Your task to perform on an android device: Do I have any events today? Image 0: 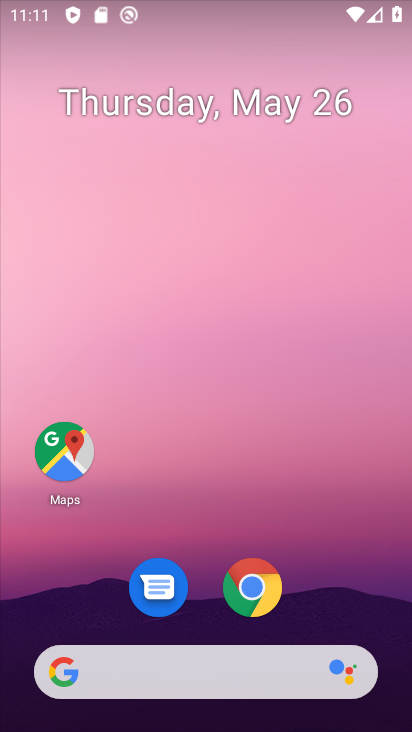
Step 0: drag from (239, 690) to (392, 42)
Your task to perform on an android device: Do I have any events today? Image 1: 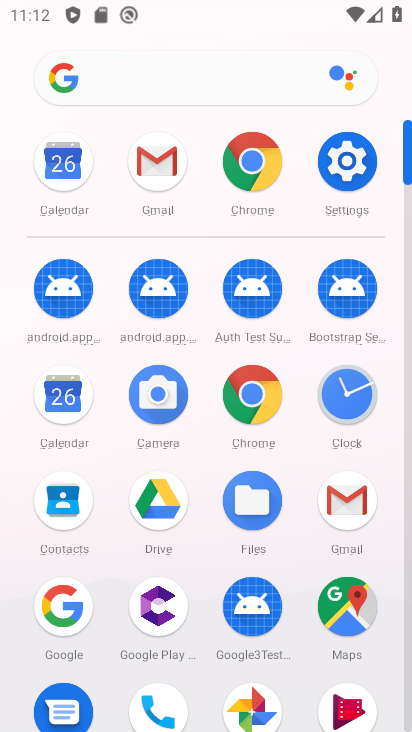
Step 1: click (59, 402)
Your task to perform on an android device: Do I have any events today? Image 2: 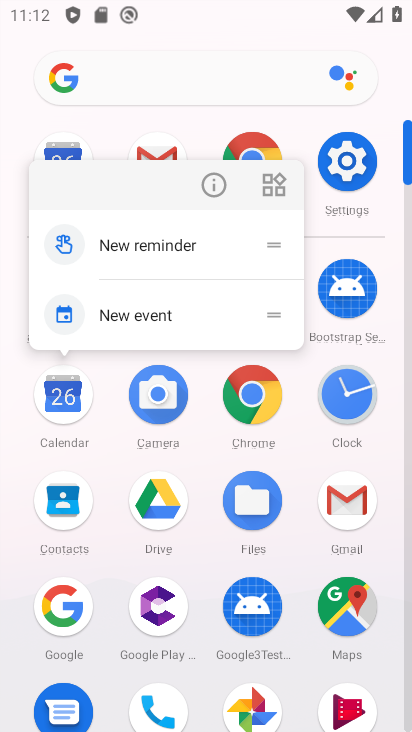
Step 2: click (67, 412)
Your task to perform on an android device: Do I have any events today? Image 3: 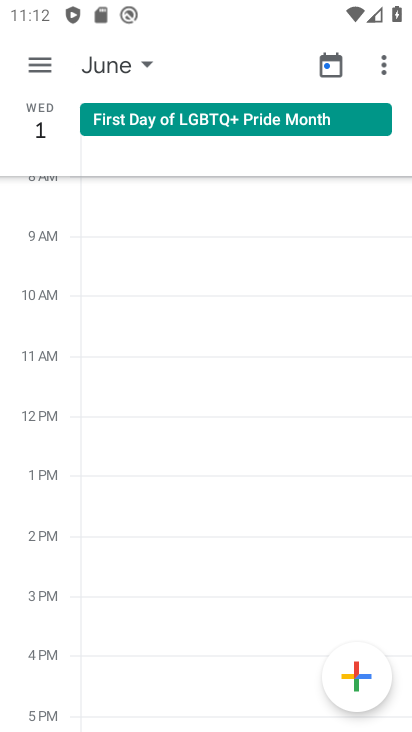
Step 3: click (40, 75)
Your task to perform on an android device: Do I have any events today? Image 4: 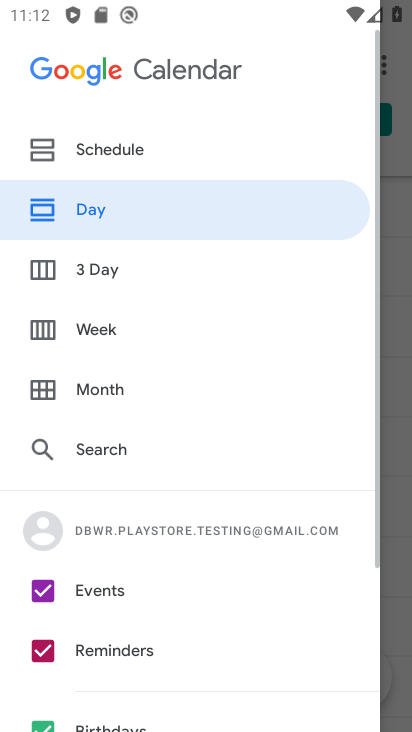
Step 4: click (101, 395)
Your task to perform on an android device: Do I have any events today? Image 5: 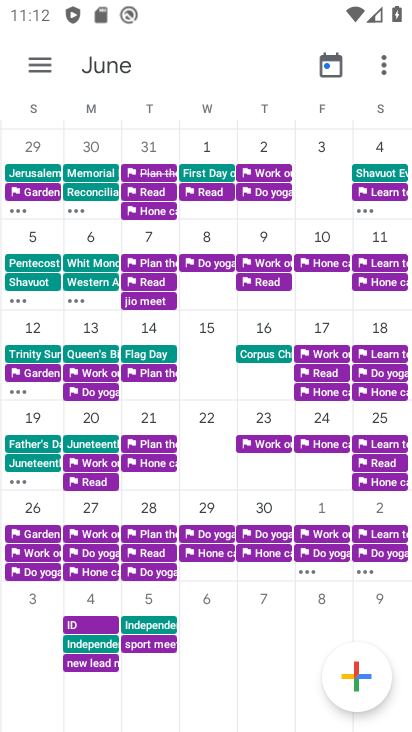
Step 5: drag from (74, 370) to (403, 343)
Your task to perform on an android device: Do I have any events today? Image 6: 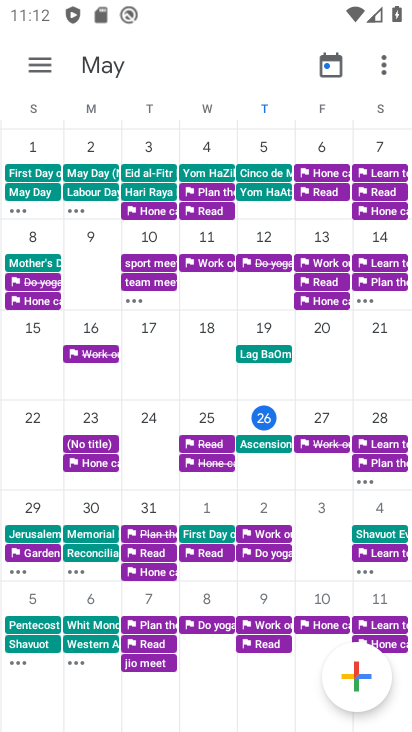
Step 6: click (42, 72)
Your task to perform on an android device: Do I have any events today? Image 7: 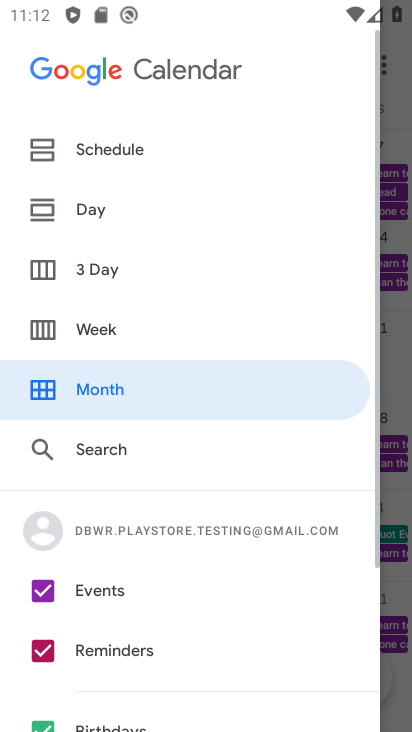
Step 7: click (100, 138)
Your task to perform on an android device: Do I have any events today? Image 8: 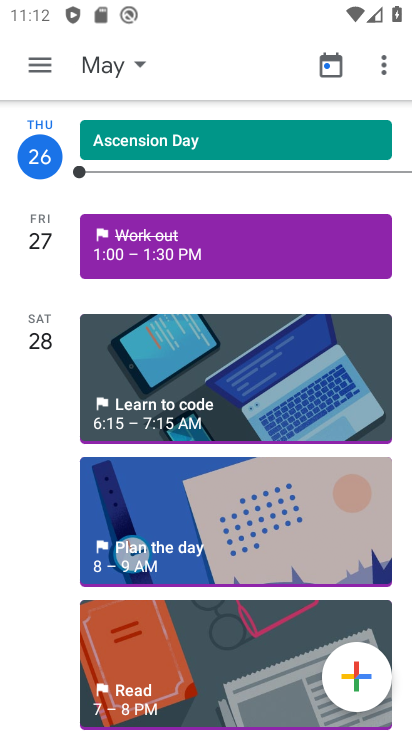
Step 8: task complete